Your task to perform on an android device: move an email to a new category in the gmail app Image 0: 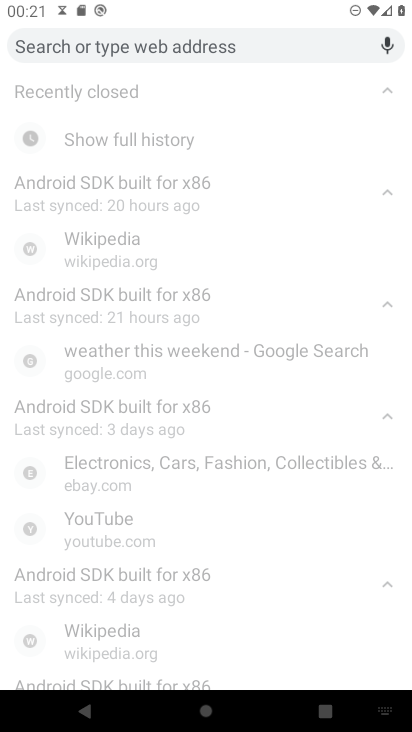
Step 0: press home button
Your task to perform on an android device: move an email to a new category in the gmail app Image 1: 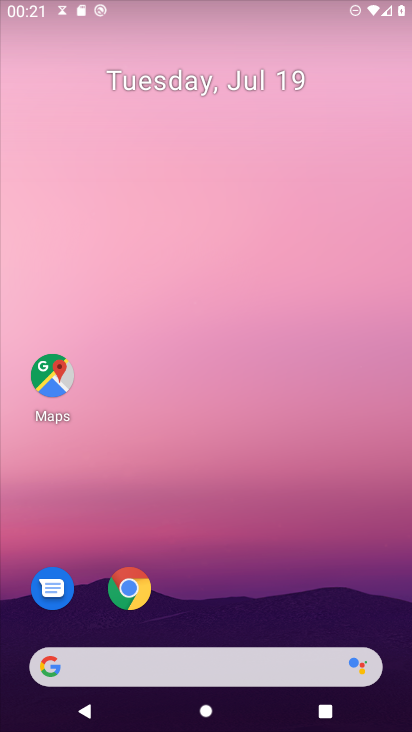
Step 1: drag from (314, 513) to (298, 71)
Your task to perform on an android device: move an email to a new category in the gmail app Image 2: 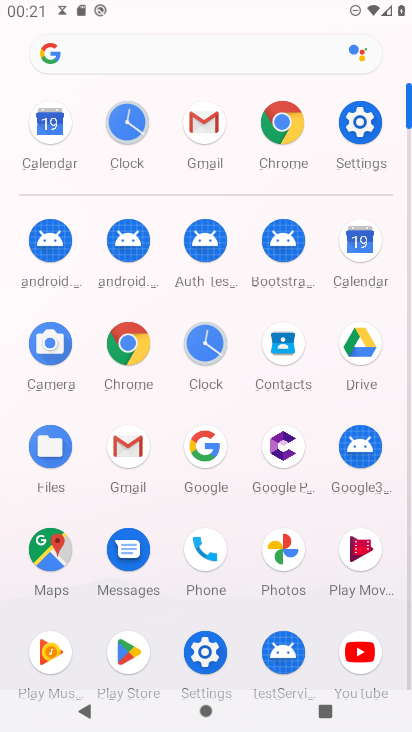
Step 2: click (200, 117)
Your task to perform on an android device: move an email to a new category in the gmail app Image 3: 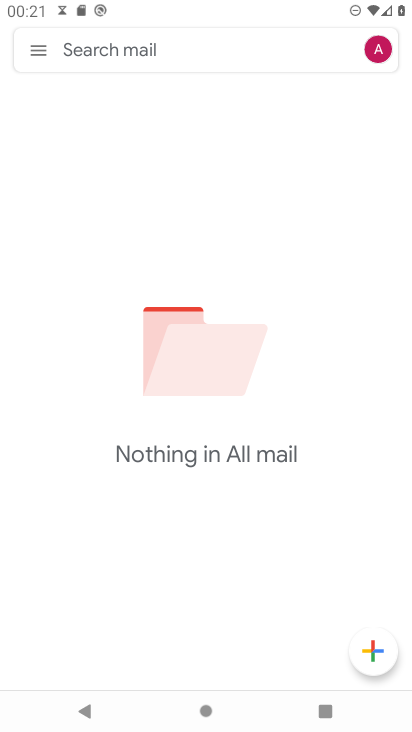
Step 3: click (39, 47)
Your task to perform on an android device: move an email to a new category in the gmail app Image 4: 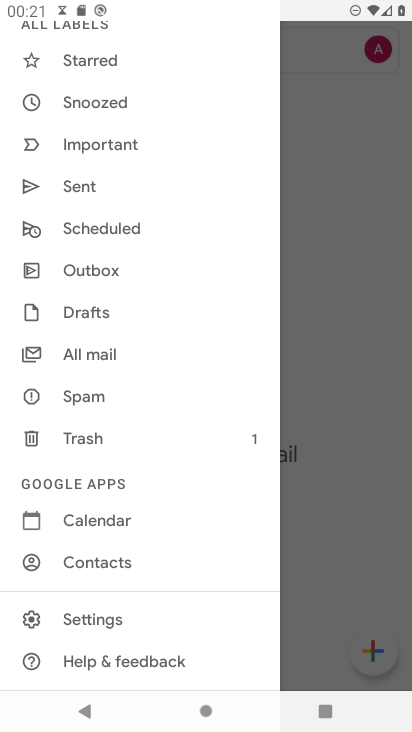
Step 4: click (85, 353)
Your task to perform on an android device: move an email to a new category in the gmail app Image 5: 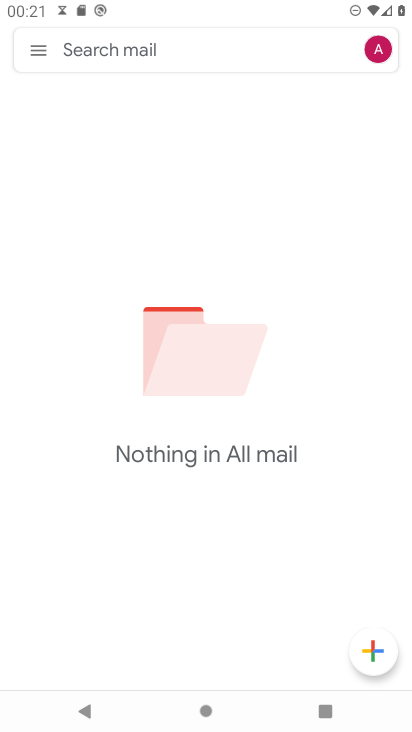
Step 5: task complete